Your task to perform on an android device: Go to Android settings Image 0: 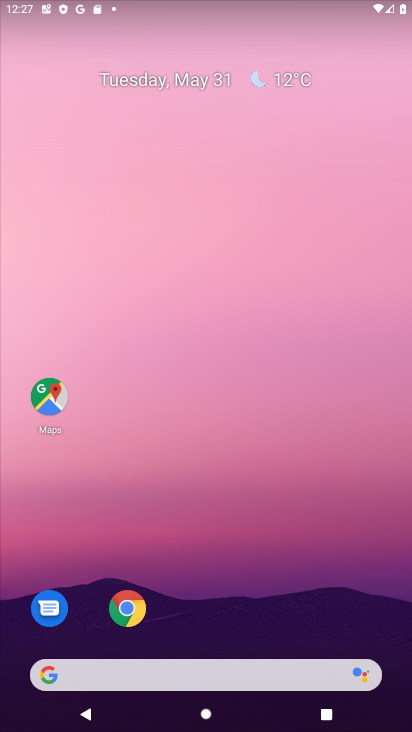
Step 0: drag from (195, 594) to (281, 69)
Your task to perform on an android device: Go to Android settings Image 1: 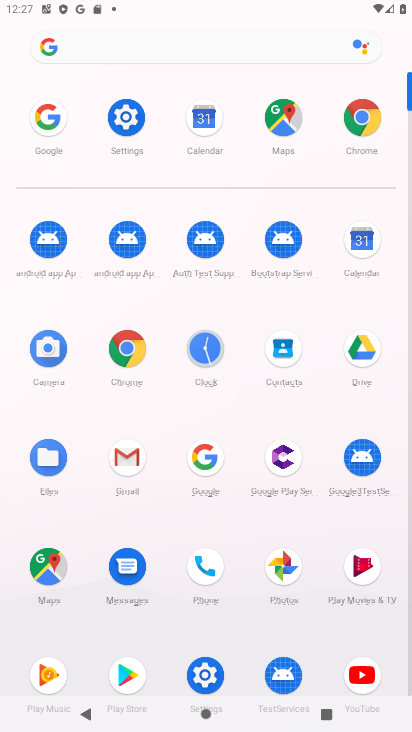
Step 1: click (122, 117)
Your task to perform on an android device: Go to Android settings Image 2: 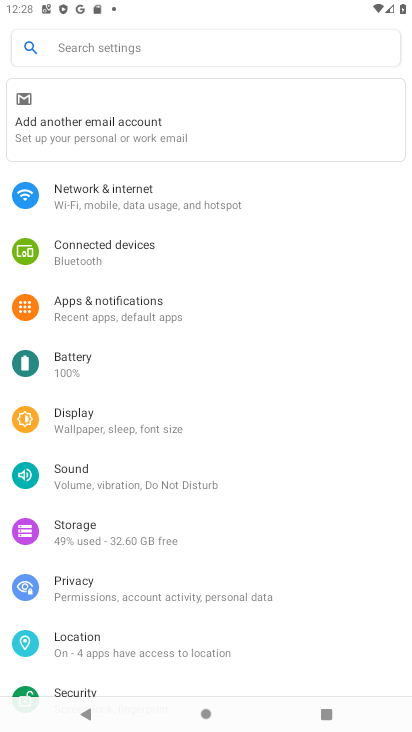
Step 2: task complete